Your task to perform on an android device: What is the recent news? Image 0: 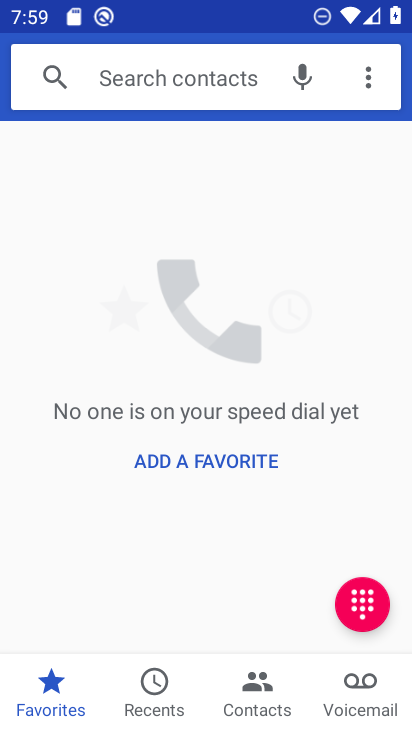
Step 0: press back button
Your task to perform on an android device: What is the recent news? Image 1: 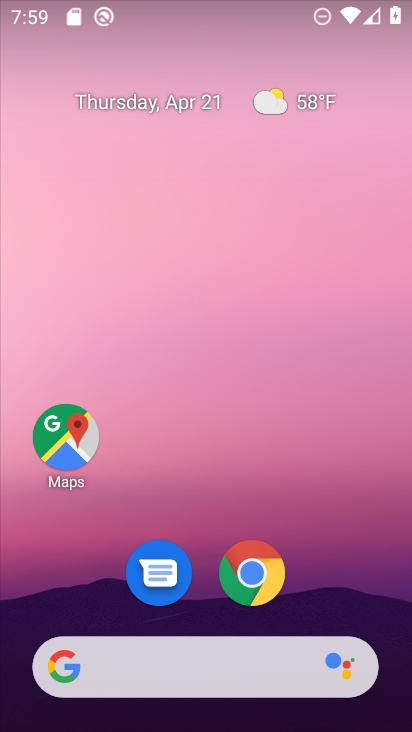
Step 1: drag from (223, 498) to (293, 205)
Your task to perform on an android device: What is the recent news? Image 2: 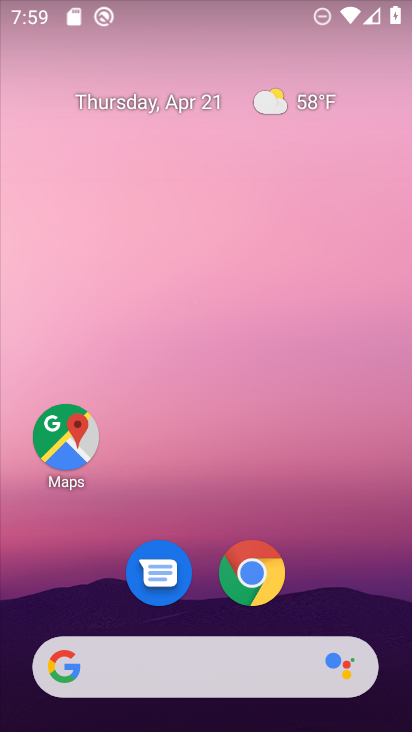
Step 2: drag from (200, 639) to (204, 233)
Your task to perform on an android device: What is the recent news? Image 3: 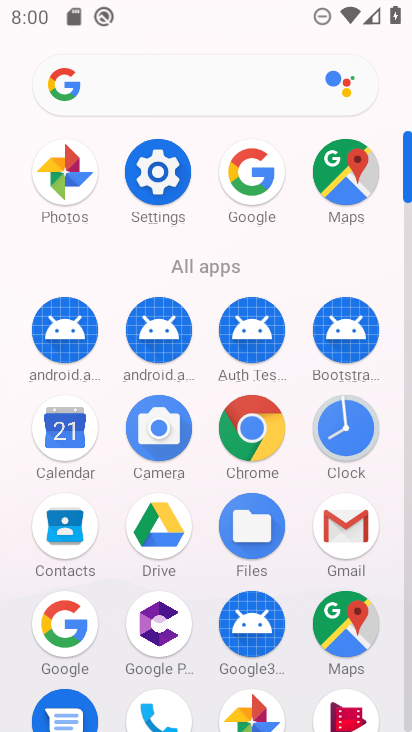
Step 3: drag from (208, 636) to (237, 298)
Your task to perform on an android device: What is the recent news? Image 4: 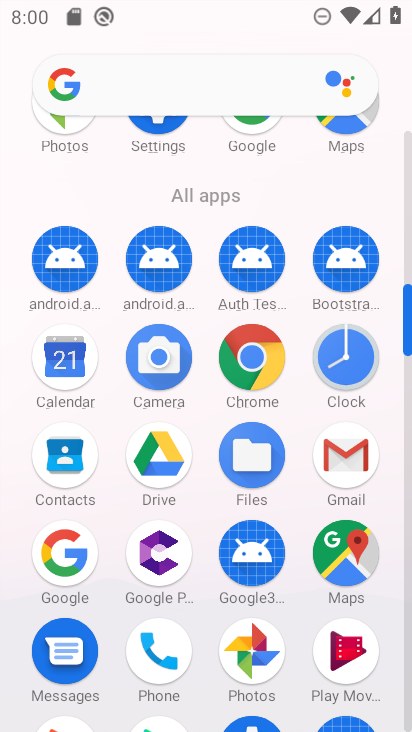
Step 4: click (63, 555)
Your task to perform on an android device: What is the recent news? Image 5: 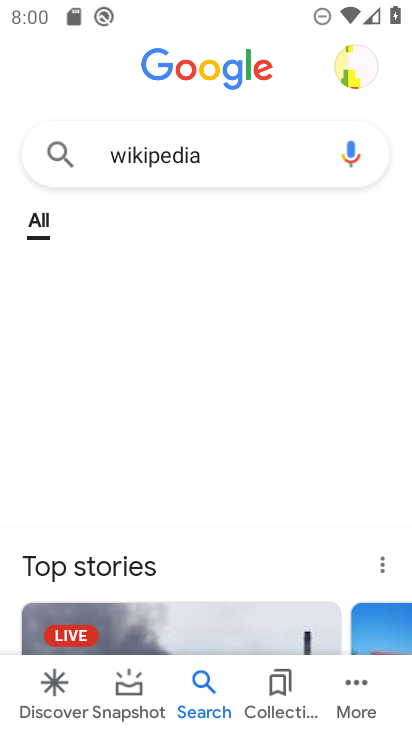
Step 5: click (228, 152)
Your task to perform on an android device: What is the recent news? Image 6: 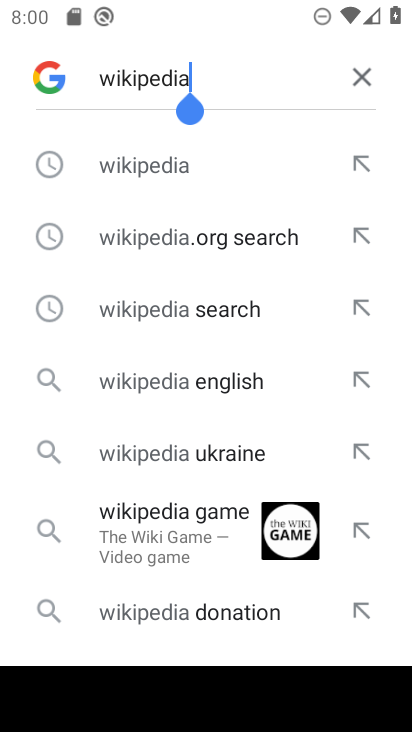
Step 6: click (355, 84)
Your task to perform on an android device: What is the recent news? Image 7: 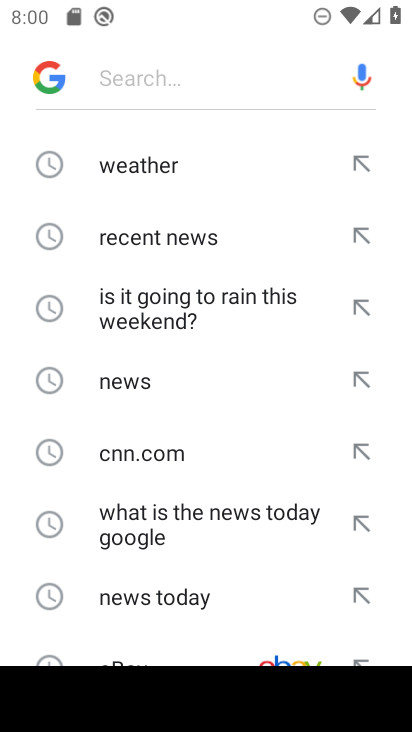
Step 7: drag from (137, 626) to (190, 258)
Your task to perform on an android device: What is the recent news? Image 8: 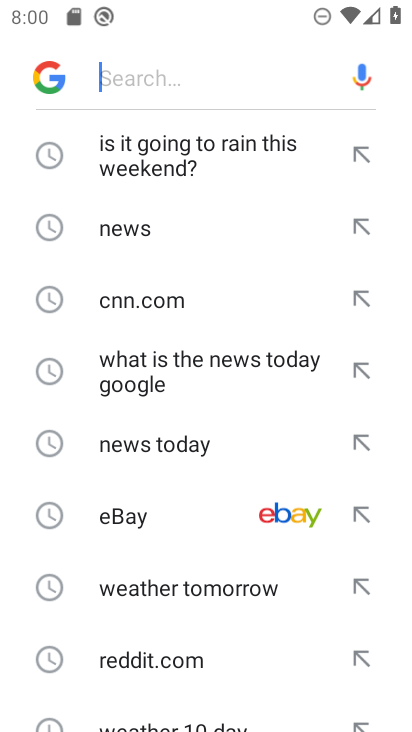
Step 8: drag from (184, 141) to (210, 513)
Your task to perform on an android device: What is the recent news? Image 9: 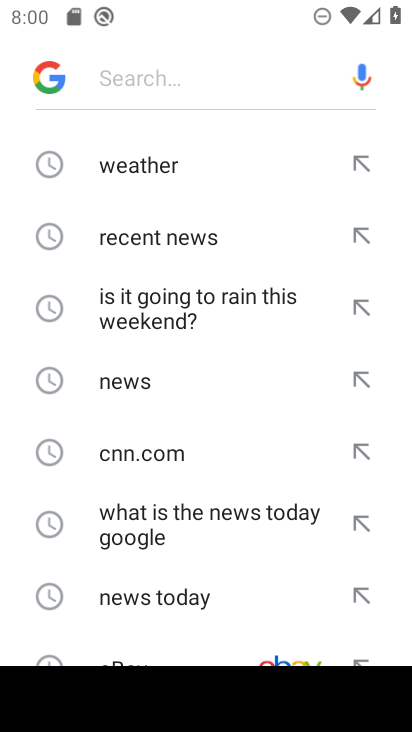
Step 9: click (179, 241)
Your task to perform on an android device: What is the recent news? Image 10: 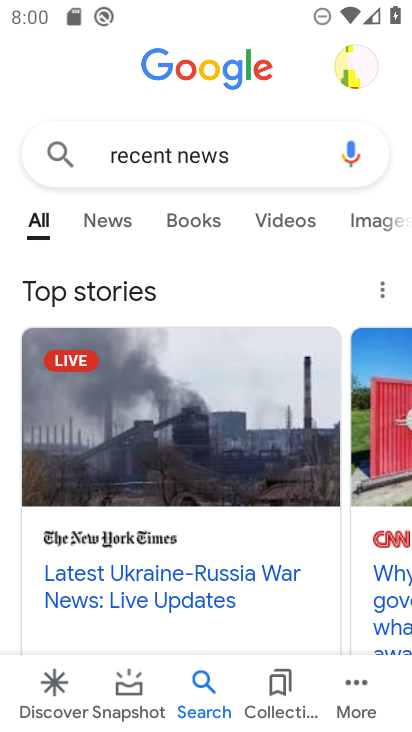
Step 10: task complete